Your task to perform on an android device: Is it going to rain today? Image 0: 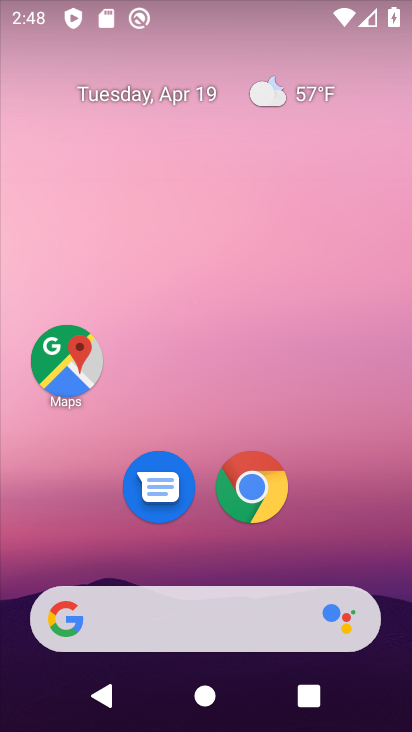
Step 0: drag from (381, 522) to (379, 172)
Your task to perform on an android device: Is it going to rain today? Image 1: 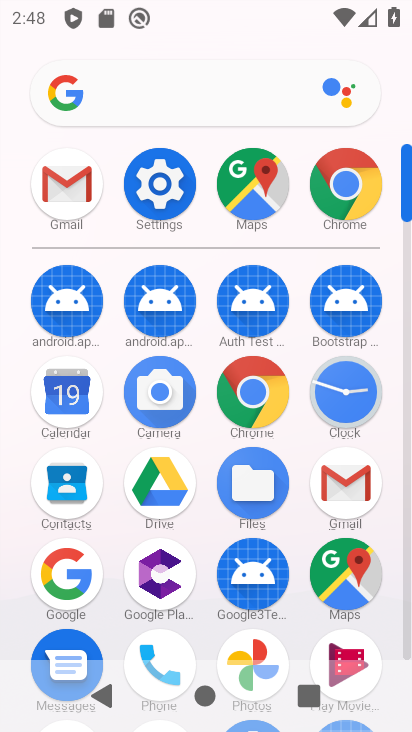
Step 1: click (349, 192)
Your task to perform on an android device: Is it going to rain today? Image 2: 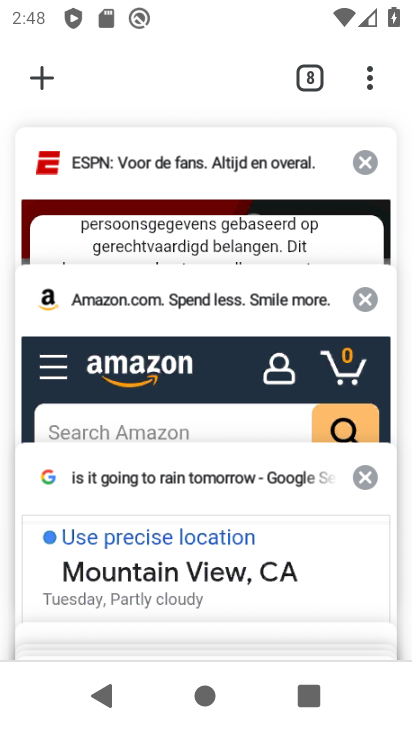
Step 2: click (35, 79)
Your task to perform on an android device: Is it going to rain today? Image 3: 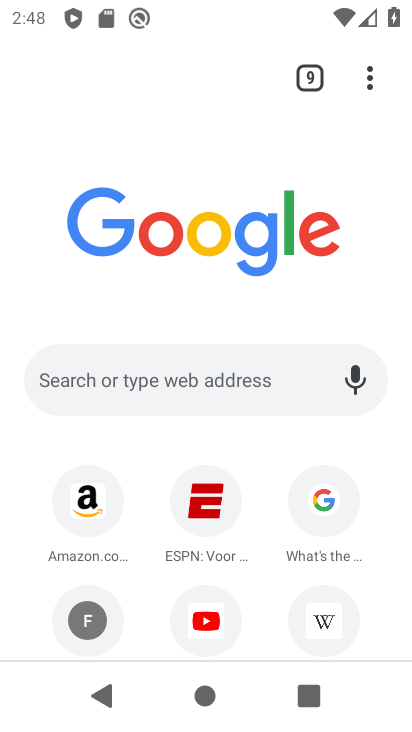
Step 3: click (241, 374)
Your task to perform on an android device: Is it going to rain today? Image 4: 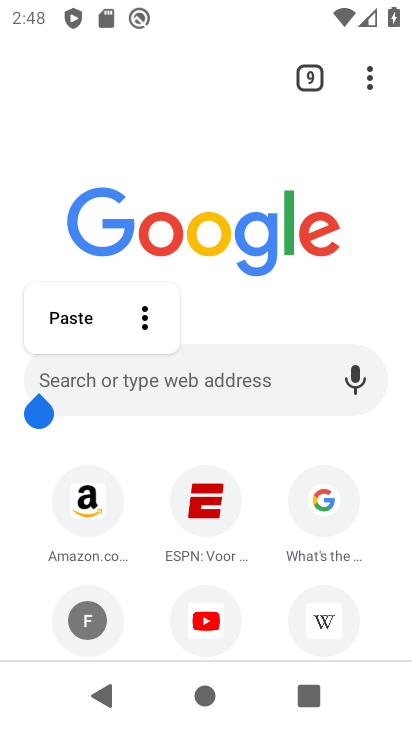
Step 4: click (194, 379)
Your task to perform on an android device: Is it going to rain today? Image 5: 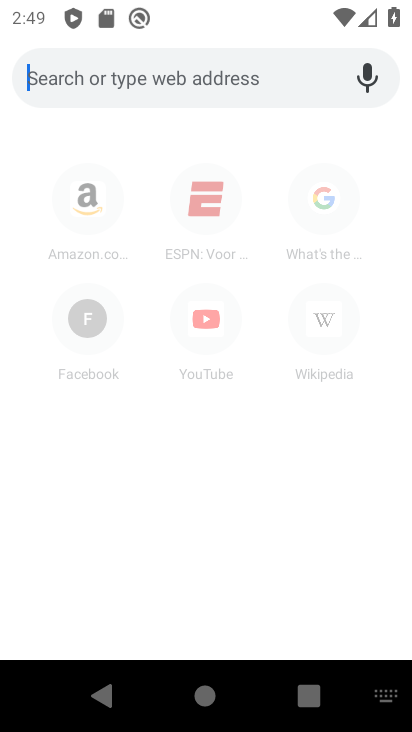
Step 5: type "is it going to rain today"
Your task to perform on an android device: Is it going to rain today? Image 6: 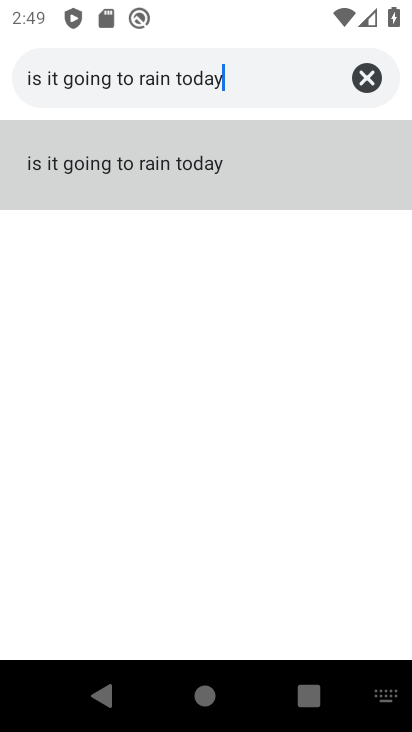
Step 6: click (181, 155)
Your task to perform on an android device: Is it going to rain today? Image 7: 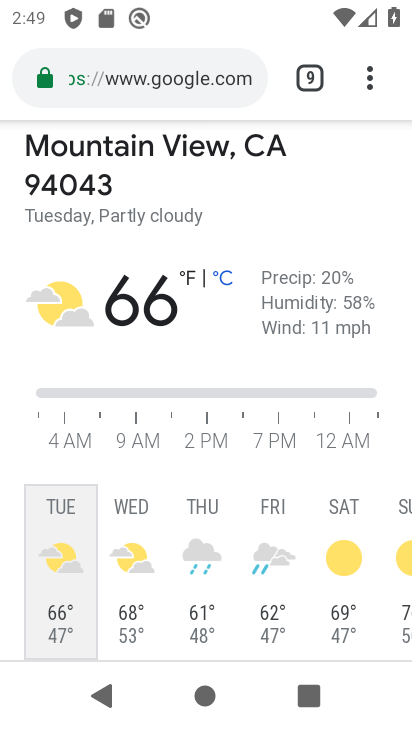
Step 7: task complete